Your task to perform on an android device: move an email to a new category in the gmail app Image 0: 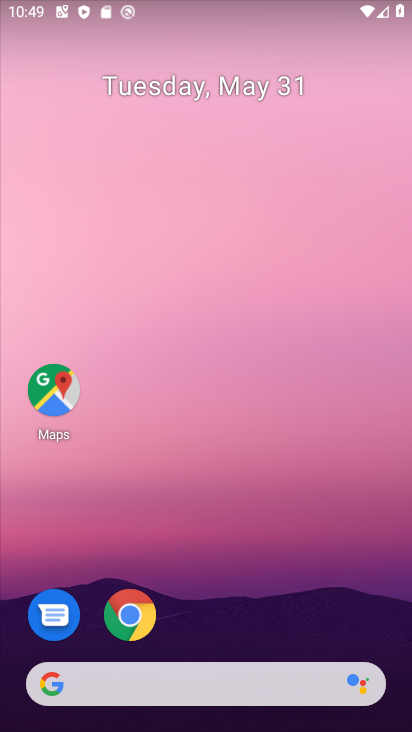
Step 0: task complete